Your task to perform on an android device: Go to sound settings Image 0: 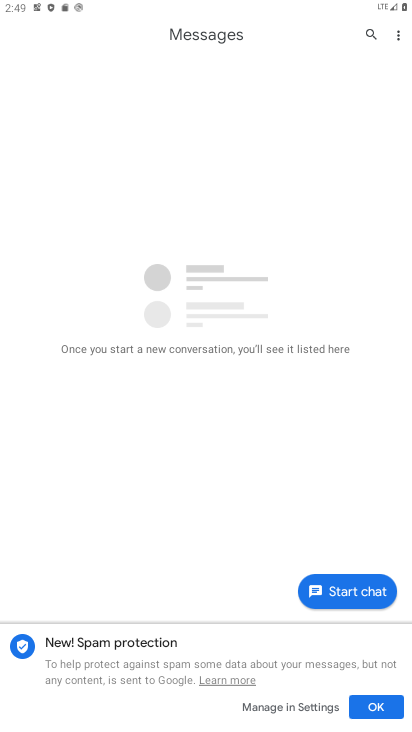
Step 0: press home button
Your task to perform on an android device: Go to sound settings Image 1: 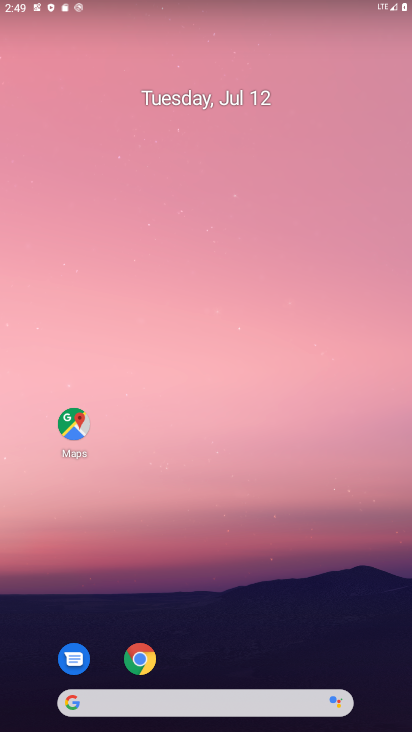
Step 1: drag from (228, 716) to (227, 128)
Your task to perform on an android device: Go to sound settings Image 2: 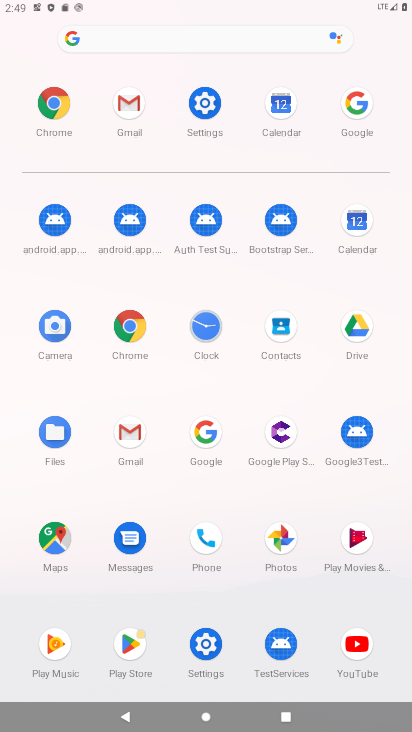
Step 2: click (207, 109)
Your task to perform on an android device: Go to sound settings Image 3: 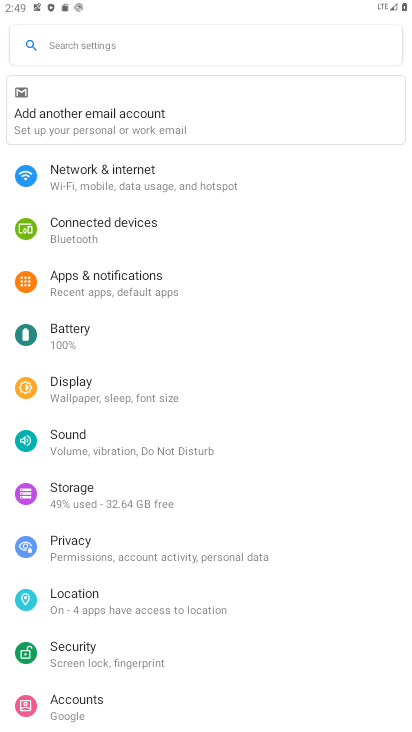
Step 3: click (69, 446)
Your task to perform on an android device: Go to sound settings Image 4: 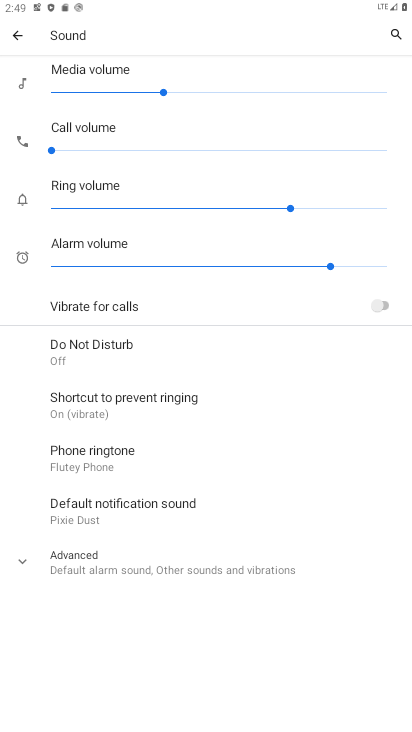
Step 4: task complete